Your task to perform on an android device: Open Google Chrome Image 0: 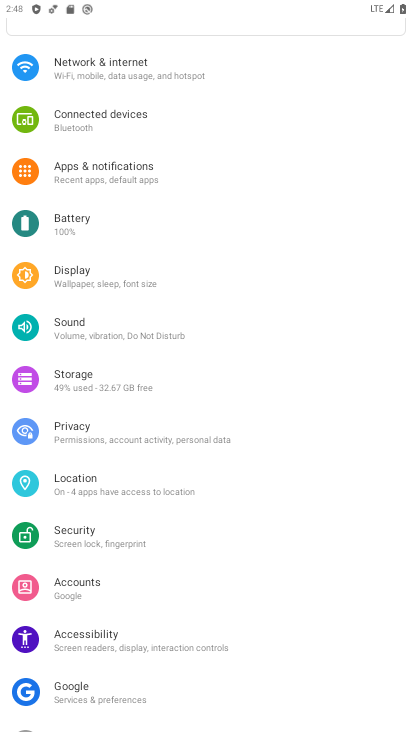
Step 0: press home button
Your task to perform on an android device: Open Google Chrome Image 1: 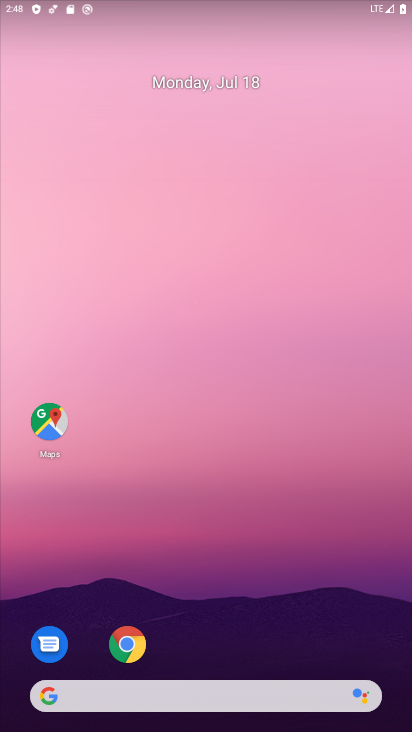
Step 1: click (123, 645)
Your task to perform on an android device: Open Google Chrome Image 2: 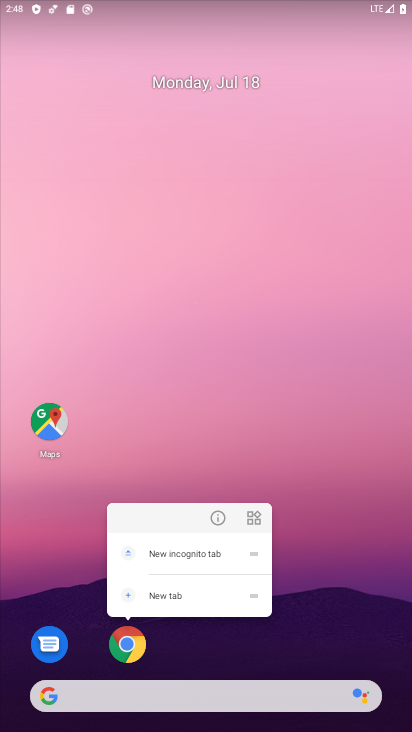
Step 2: click (122, 630)
Your task to perform on an android device: Open Google Chrome Image 3: 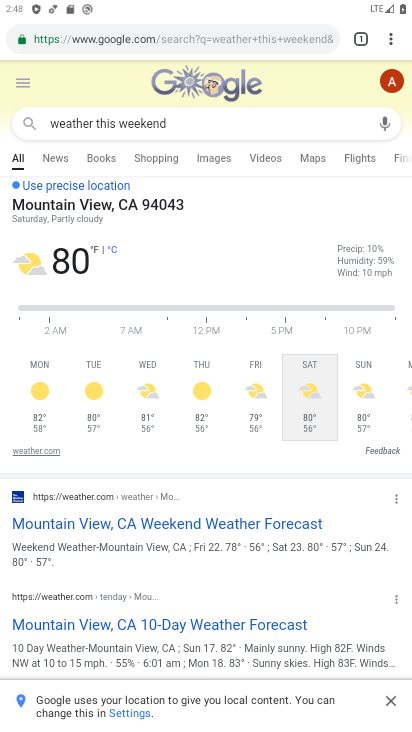
Step 3: task complete